Your task to perform on an android device: Go to sound settings Image 0: 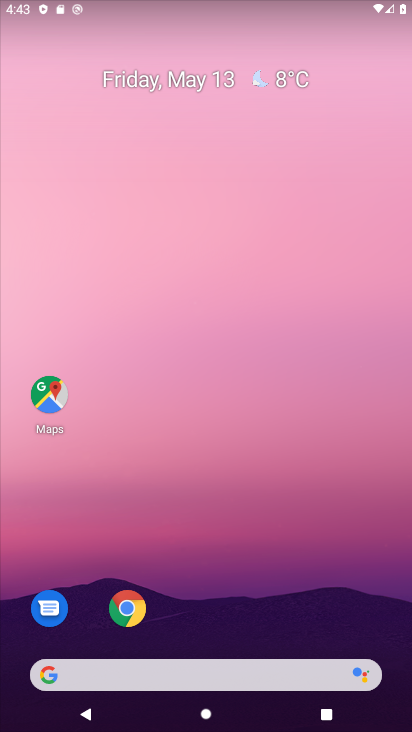
Step 0: drag from (247, 566) to (267, 136)
Your task to perform on an android device: Go to sound settings Image 1: 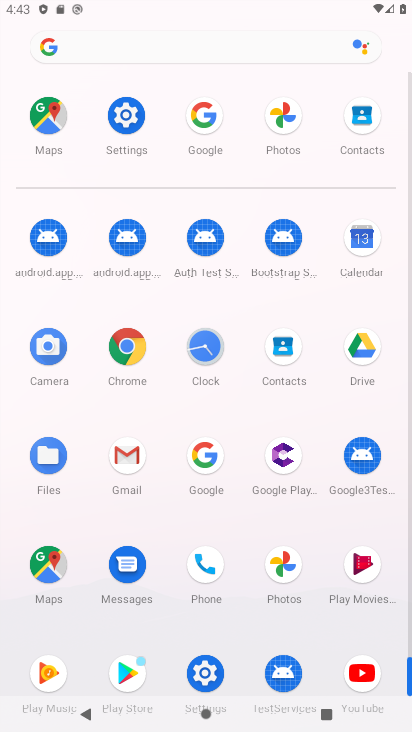
Step 1: click (205, 669)
Your task to perform on an android device: Go to sound settings Image 2: 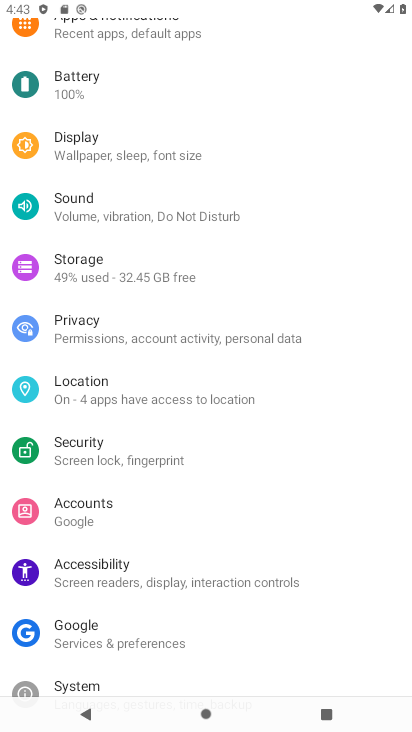
Step 2: click (134, 209)
Your task to perform on an android device: Go to sound settings Image 3: 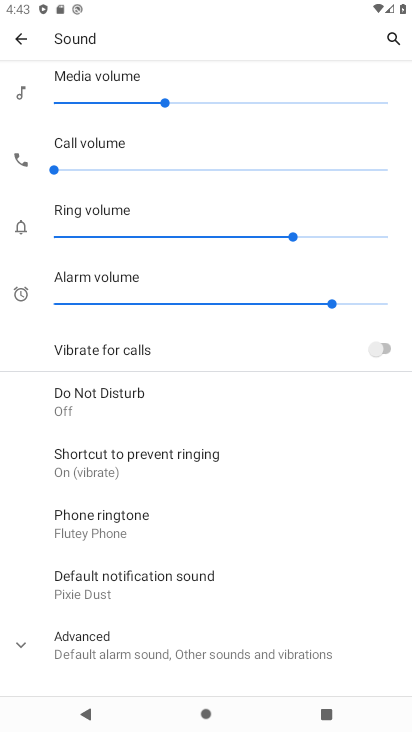
Step 3: task complete